Your task to perform on an android device: What's on my calendar tomorrow? Image 0: 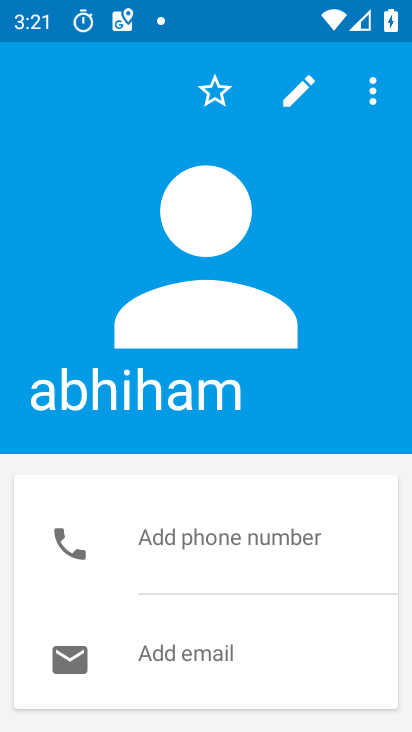
Step 0: press home button
Your task to perform on an android device: What's on my calendar tomorrow? Image 1: 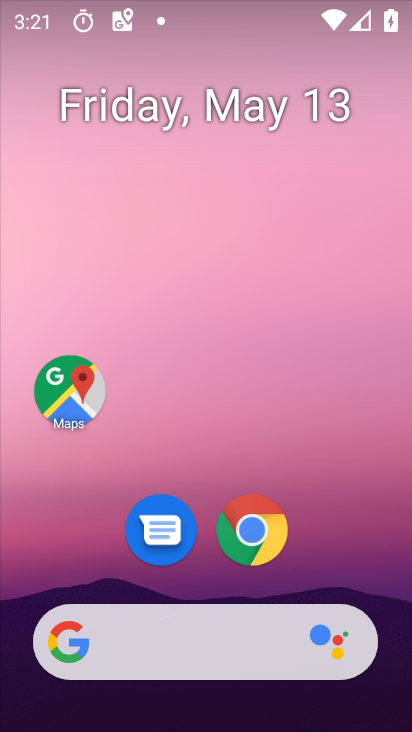
Step 1: drag from (368, 563) to (310, 117)
Your task to perform on an android device: What's on my calendar tomorrow? Image 2: 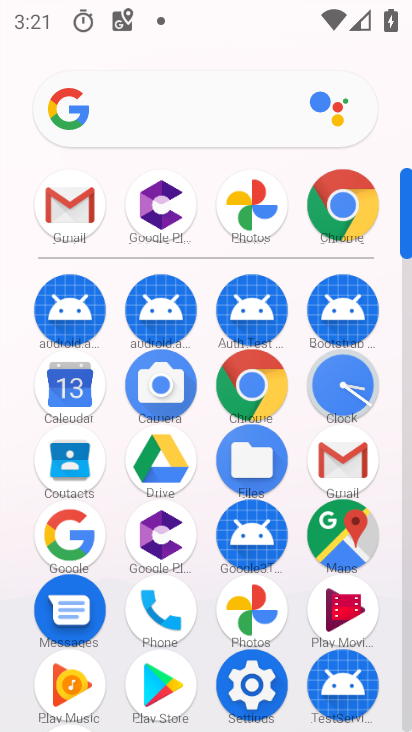
Step 2: click (90, 400)
Your task to perform on an android device: What's on my calendar tomorrow? Image 3: 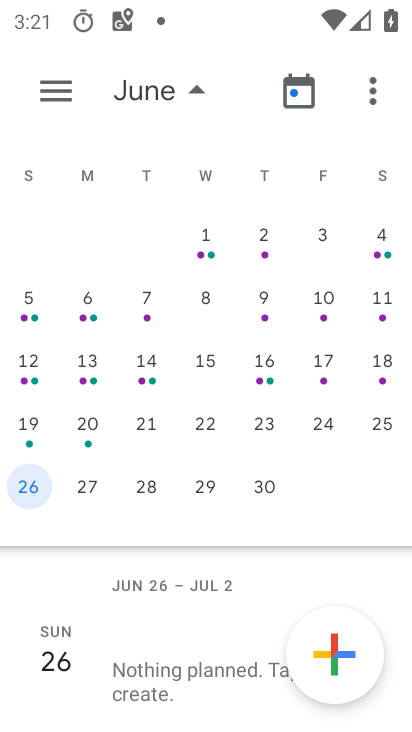
Step 3: drag from (48, 335) to (412, 313)
Your task to perform on an android device: What's on my calendar tomorrow? Image 4: 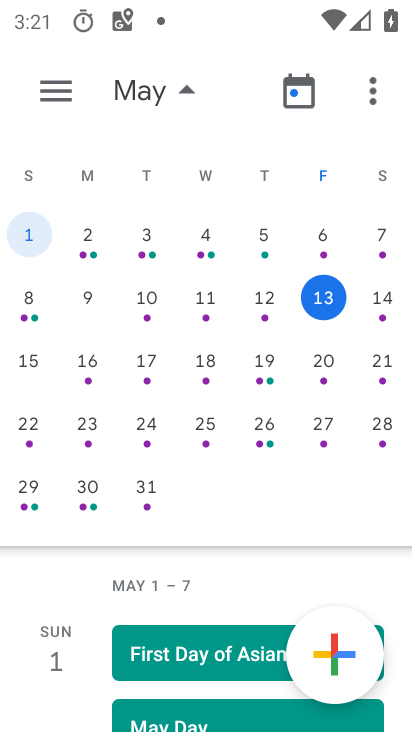
Step 4: click (297, 300)
Your task to perform on an android device: What's on my calendar tomorrow? Image 5: 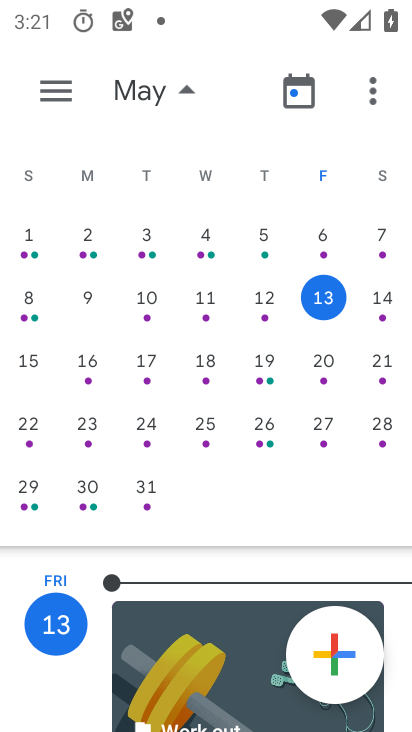
Step 5: click (374, 303)
Your task to perform on an android device: What's on my calendar tomorrow? Image 6: 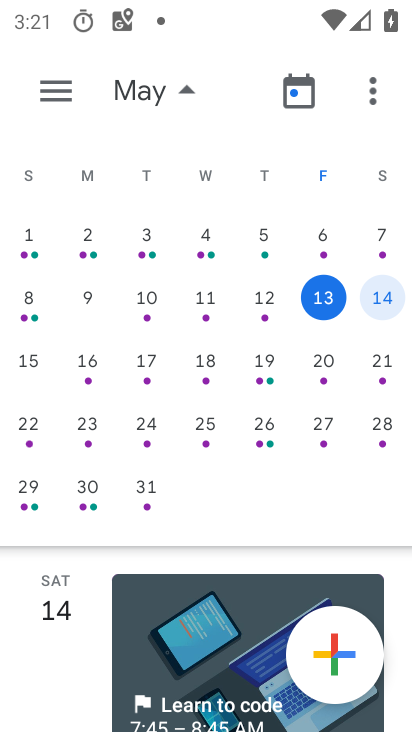
Step 6: task complete